Your task to perform on an android device: turn on sleep mode Image 0: 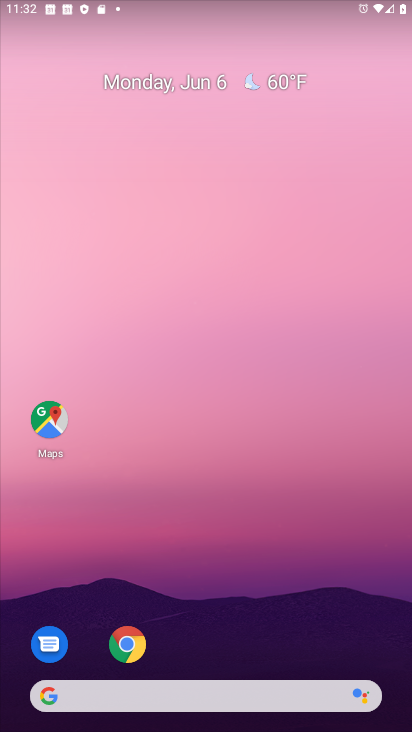
Step 0: drag from (183, 15) to (215, 696)
Your task to perform on an android device: turn on sleep mode Image 1: 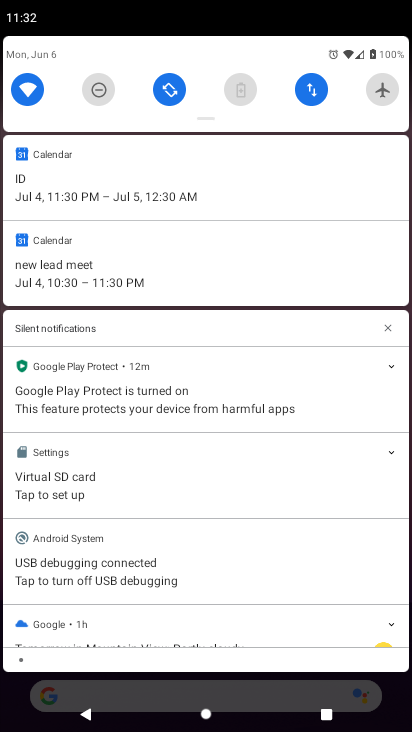
Step 1: drag from (201, 112) to (210, 530)
Your task to perform on an android device: turn on sleep mode Image 2: 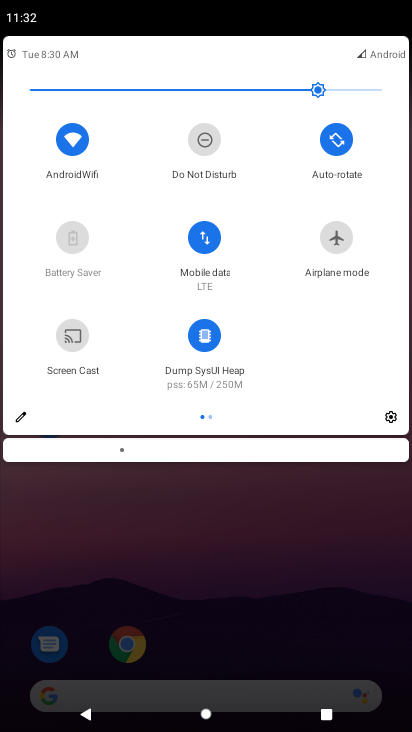
Step 2: click (16, 418)
Your task to perform on an android device: turn on sleep mode Image 3: 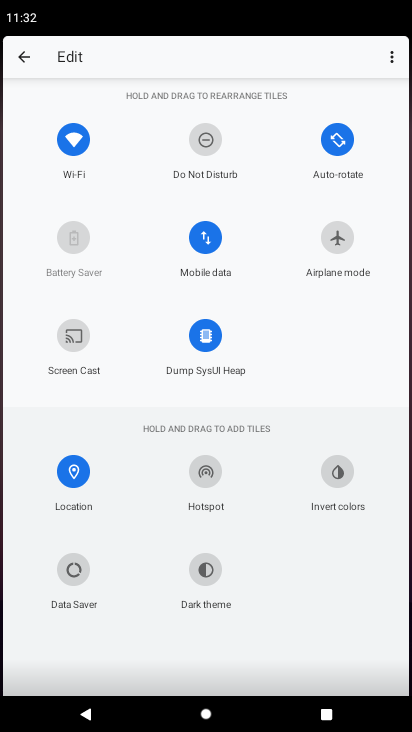
Step 3: task complete